Your task to perform on an android device: turn vacation reply on in the gmail app Image 0: 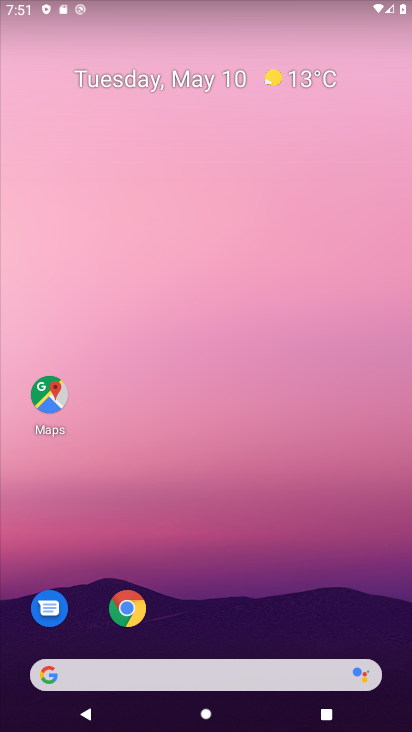
Step 0: drag from (206, 686) to (282, 210)
Your task to perform on an android device: turn vacation reply on in the gmail app Image 1: 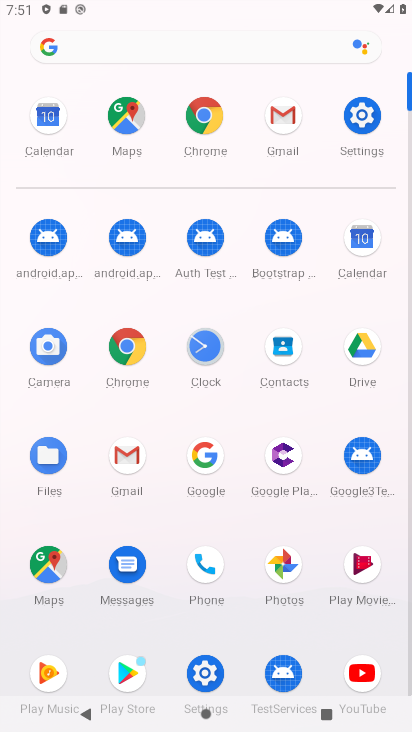
Step 1: click (290, 112)
Your task to perform on an android device: turn vacation reply on in the gmail app Image 2: 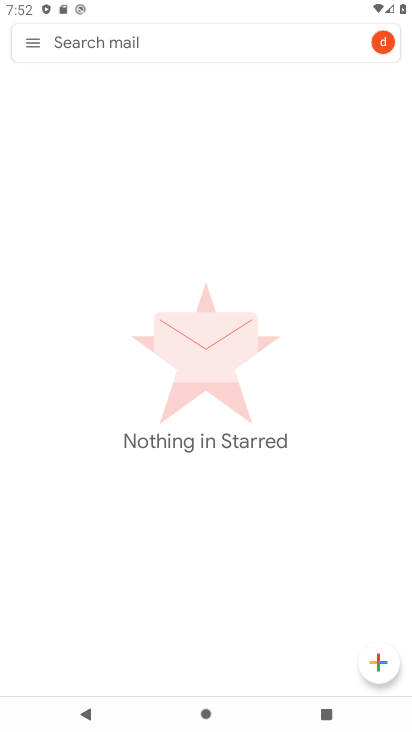
Step 2: click (32, 35)
Your task to perform on an android device: turn vacation reply on in the gmail app Image 3: 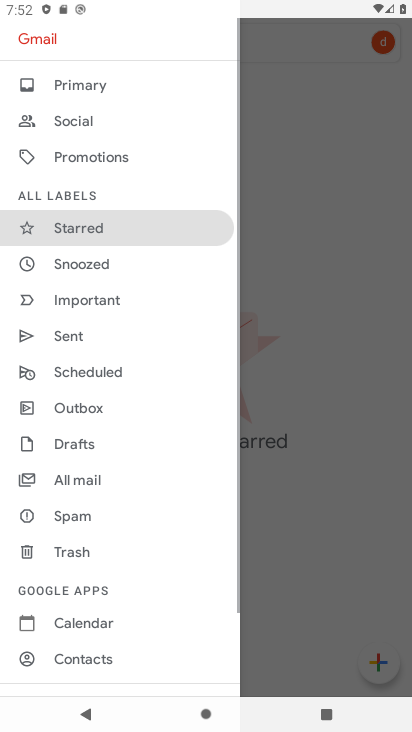
Step 3: click (122, 403)
Your task to perform on an android device: turn vacation reply on in the gmail app Image 4: 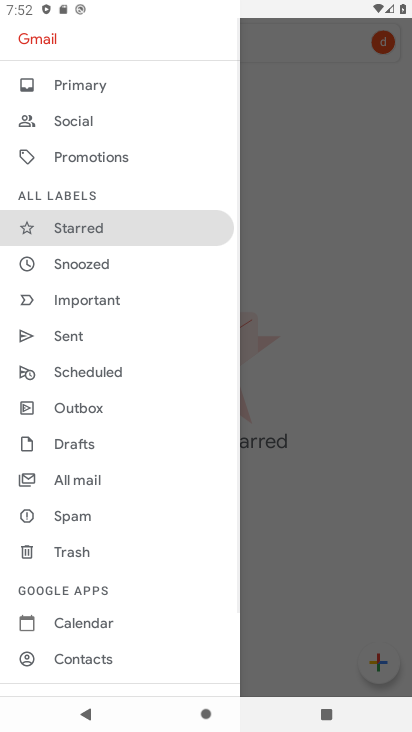
Step 4: drag from (116, 630) to (200, 139)
Your task to perform on an android device: turn vacation reply on in the gmail app Image 5: 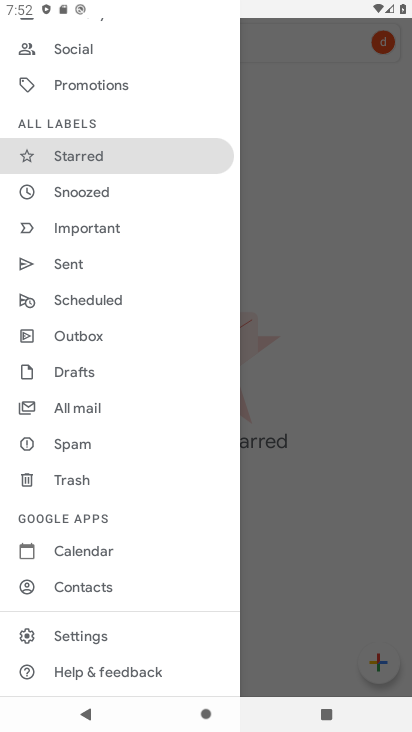
Step 5: click (96, 637)
Your task to perform on an android device: turn vacation reply on in the gmail app Image 6: 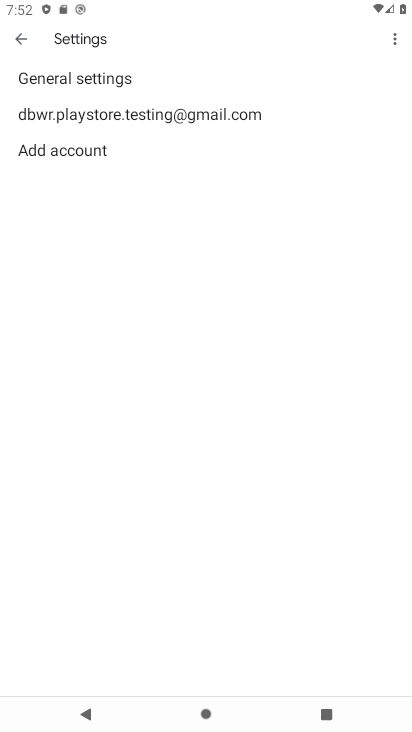
Step 6: click (120, 114)
Your task to perform on an android device: turn vacation reply on in the gmail app Image 7: 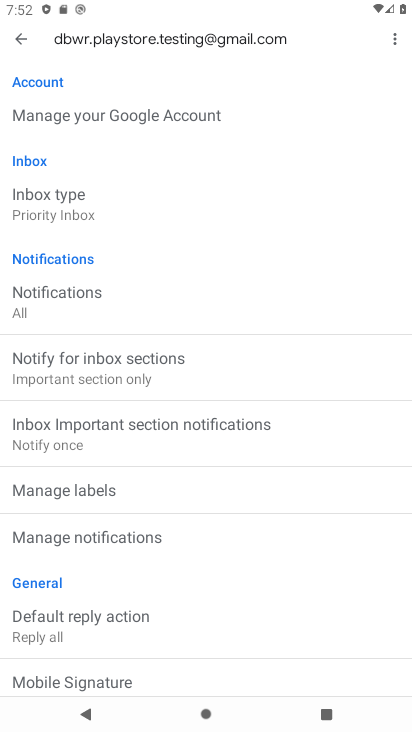
Step 7: drag from (135, 617) to (283, 180)
Your task to perform on an android device: turn vacation reply on in the gmail app Image 8: 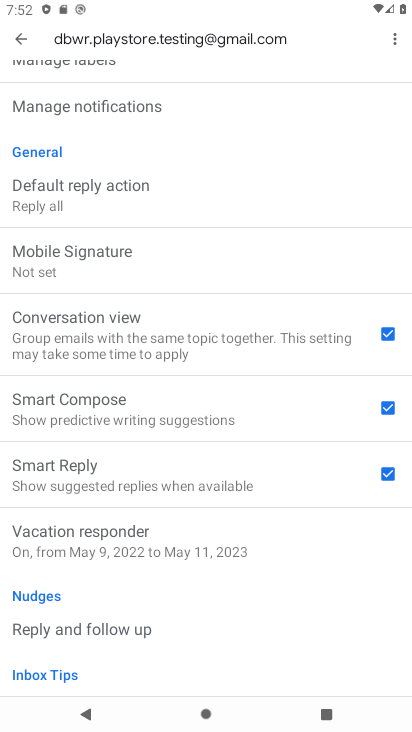
Step 8: click (156, 549)
Your task to perform on an android device: turn vacation reply on in the gmail app Image 9: 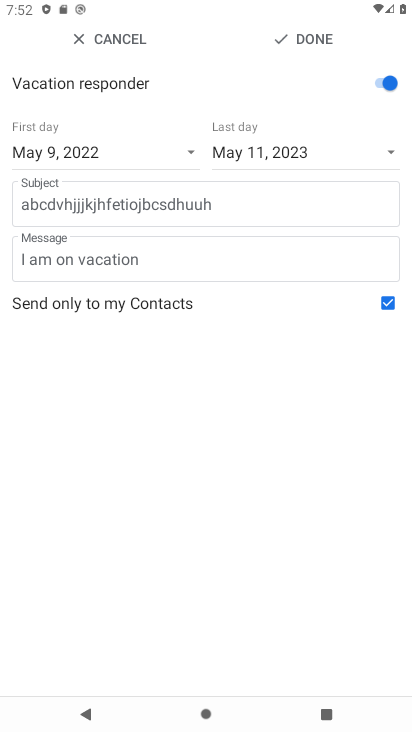
Step 9: task complete